Your task to perform on an android device: Add "lg ultragear" to the cart on amazon, then select checkout. Image 0: 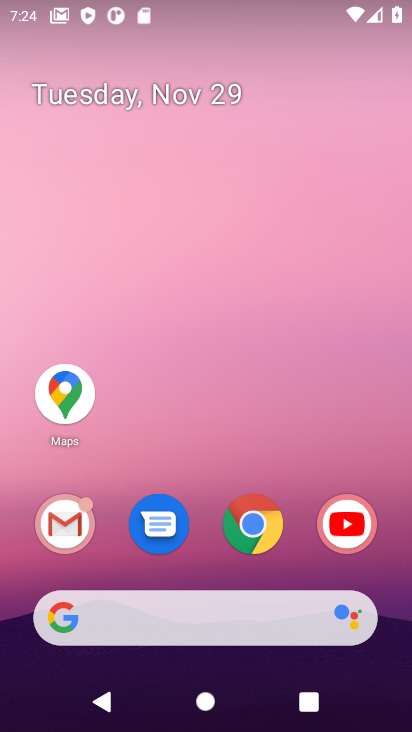
Step 0: click (261, 532)
Your task to perform on an android device: Add "lg ultragear" to the cart on amazon, then select checkout. Image 1: 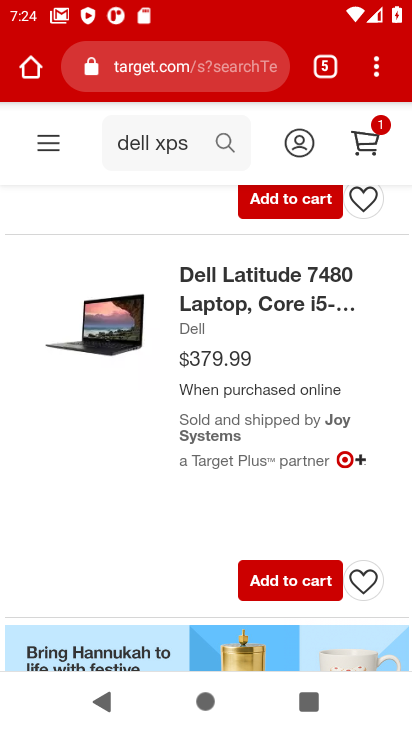
Step 1: click (156, 67)
Your task to perform on an android device: Add "lg ultragear" to the cart on amazon, then select checkout. Image 2: 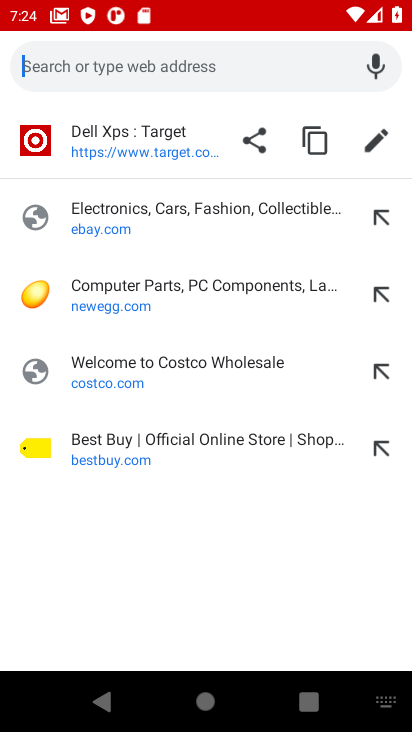
Step 2: type "amazon.com"
Your task to perform on an android device: Add "lg ultragear" to the cart on amazon, then select checkout. Image 3: 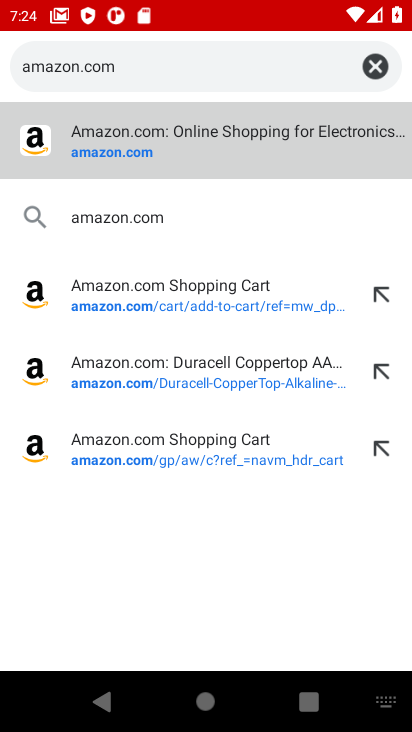
Step 3: click (130, 142)
Your task to perform on an android device: Add "lg ultragear" to the cart on amazon, then select checkout. Image 4: 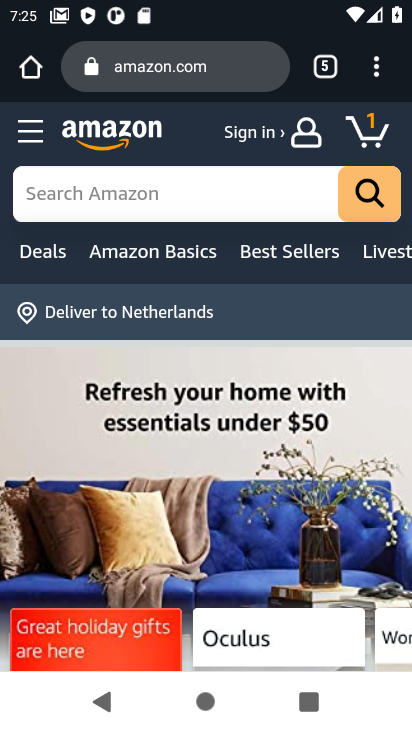
Step 4: click (126, 195)
Your task to perform on an android device: Add "lg ultragear" to the cart on amazon, then select checkout. Image 5: 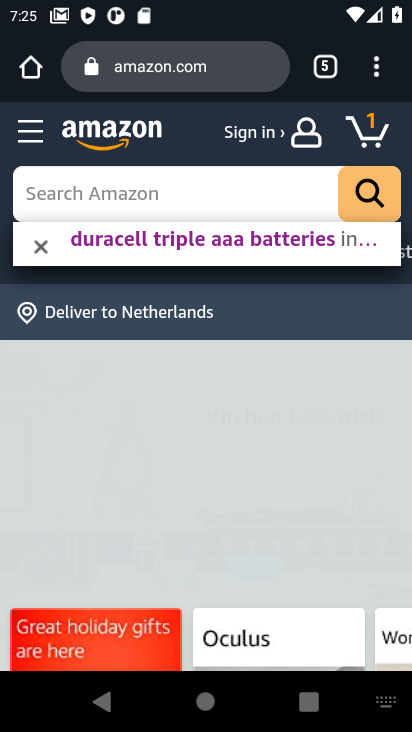
Step 5: type "lg ultragear"
Your task to perform on an android device: Add "lg ultragear" to the cart on amazon, then select checkout. Image 6: 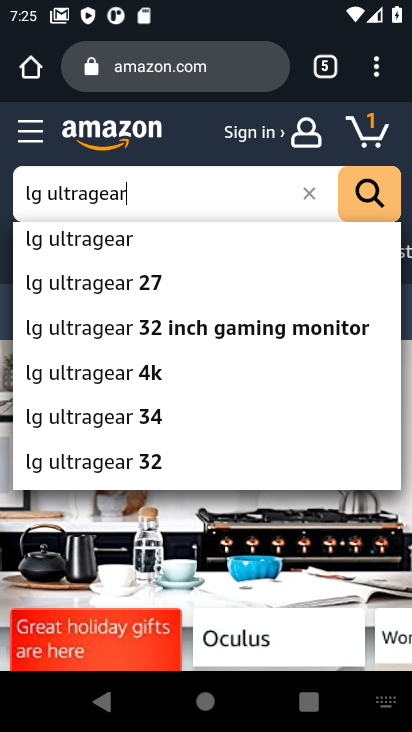
Step 6: click (89, 246)
Your task to perform on an android device: Add "lg ultragear" to the cart on amazon, then select checkout. Image 7: 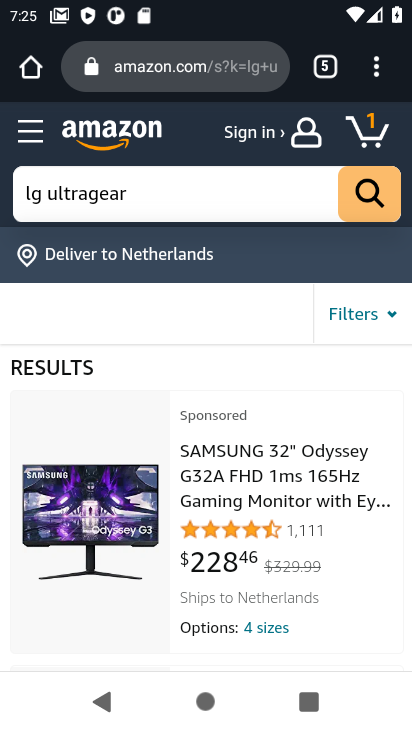
Step 7: drag from (228, 576) to (202, 356)
Your task to perform on an android device: Add "lg ultragear" to the cart on amazon, then select checkout. Image 8: 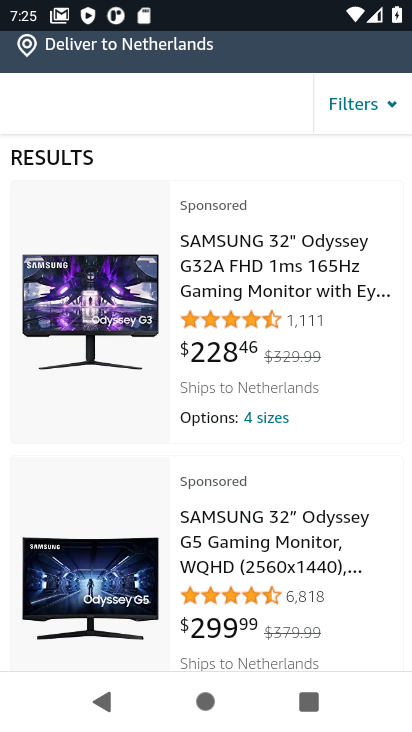
Step 8: drag from (196, 547) to (184, 333)
Your task to perform on an android device: Add "lg ultragear" to the cart on amazon, then select checkout. Image 9: 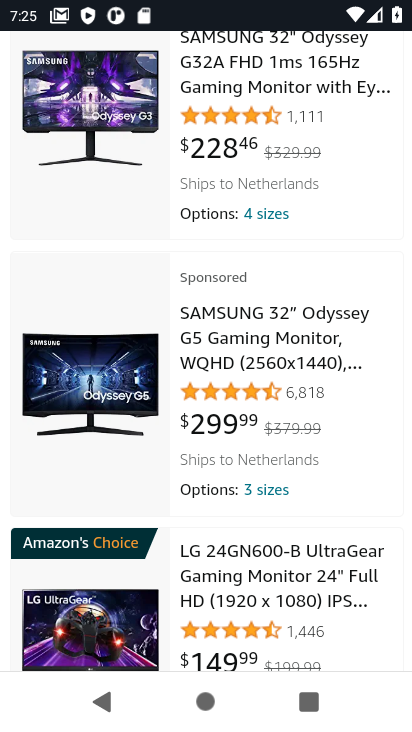
Step 9: drag from (184, 565) to (178, 286)
Your task to perform on an android device: Add "lg ultragear" to the cart on amazon, then select checkout. Image 10: 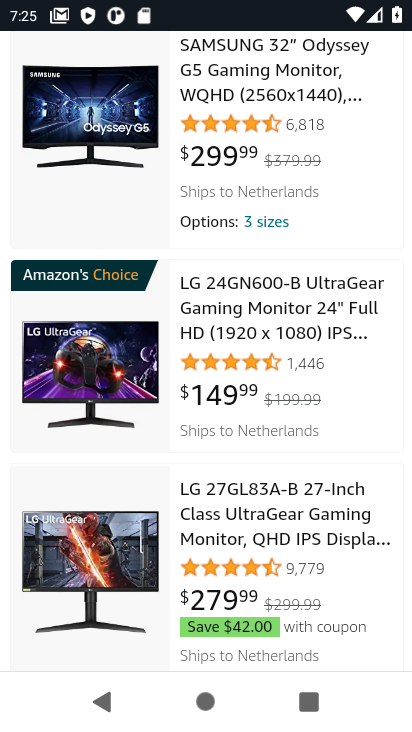
Step 10: click (204, 342)
Your task to perform on an android device: Add "lg ultragear" to the cart on amazon, then select checkout. Image 11: 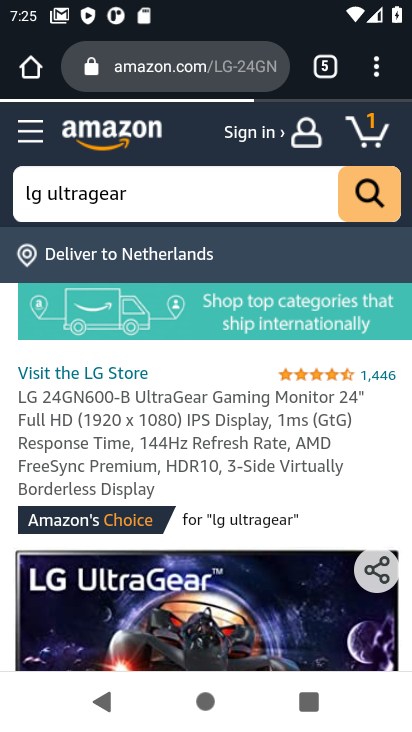
Step 11: drag from (195, 544) to (159, 200)
Your task to perform on an android device: Add "lg ultragear" to the cart on amazon, then select checkout. Image 12: 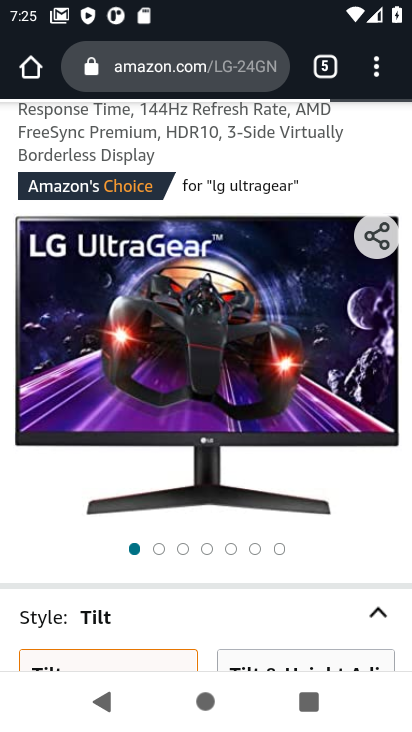
Step 12: drag from (181, 492) to (164, 242)
Your task to perform on an android device: Add "lg ultragear" to the cart on amazon, then select checkout. Image 13: 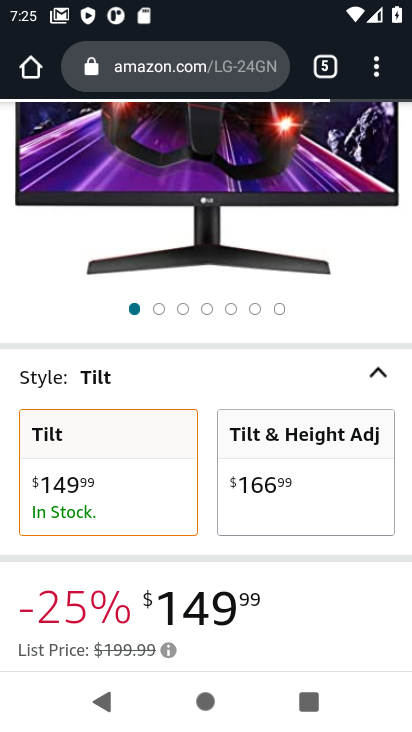
Step 13: drag from (168, 544) to (156, 267)
Your task to perform on an android device: Add "lg ultragear" to the cart on amazon, then select checkout. Image 14: 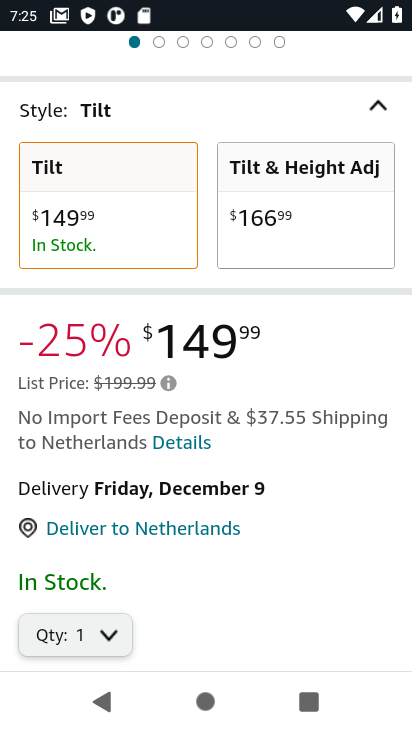
Step 14: drag from (164, 514) to (159, 326)
Your task to perform on an android device: Add "lg ultragear" to the cart on amazon, then select checkout. Image 15: 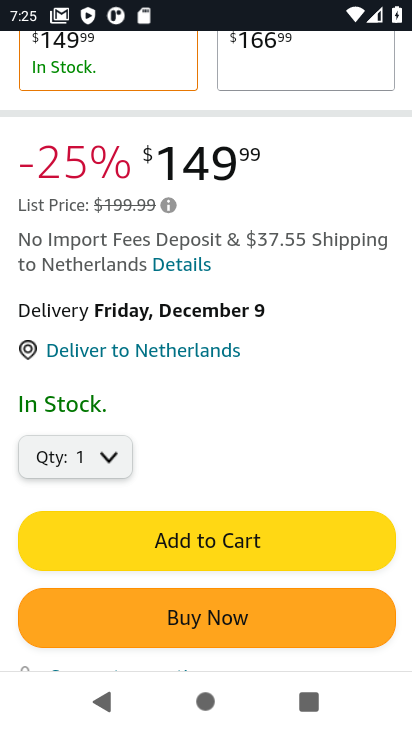
Step 15: click (184, 546)
Your task to perform on an android device: Add "lg ultragear" to the cart on amazon, then select checkout. Image 16: 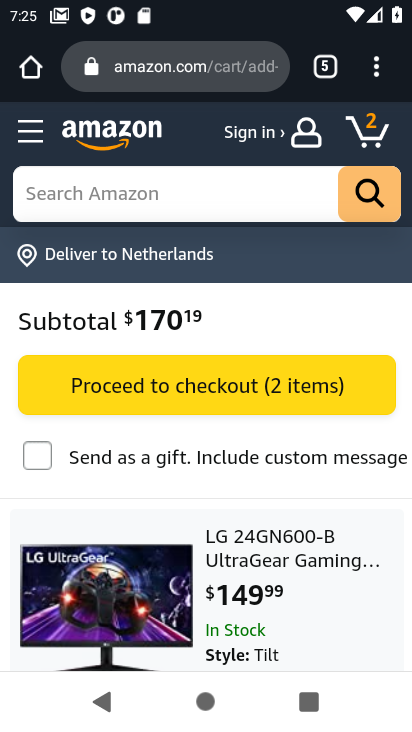
Step 16: click (183, 384)
Your task to perform on an android device: Add "lg ultragear" to the cart on amazon, then select checkout. Image 17: 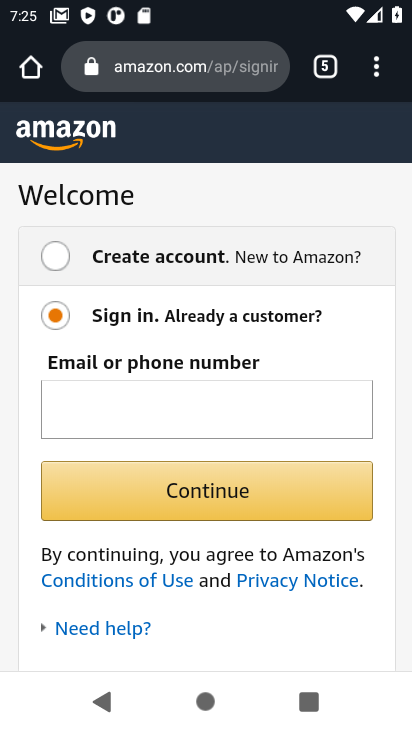
Step 17: task complete